Your task to perform on an android device: Open settings on Google Maps Image 0: 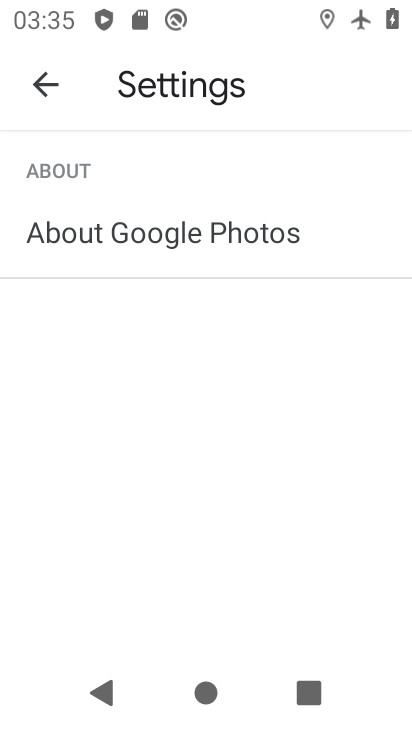
Step 0: press home button
Your task to perform on an android device: Open settings on Google Maps Image 1: 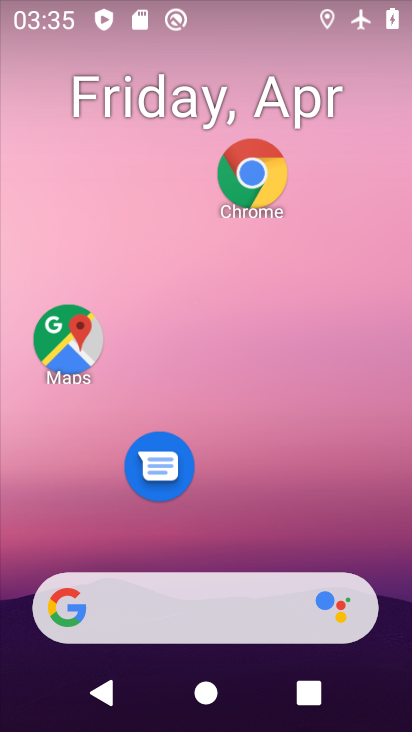
Step 1: click (70, 354)
Your task to perform on an android device: Open settings on Google Maps Image 2: 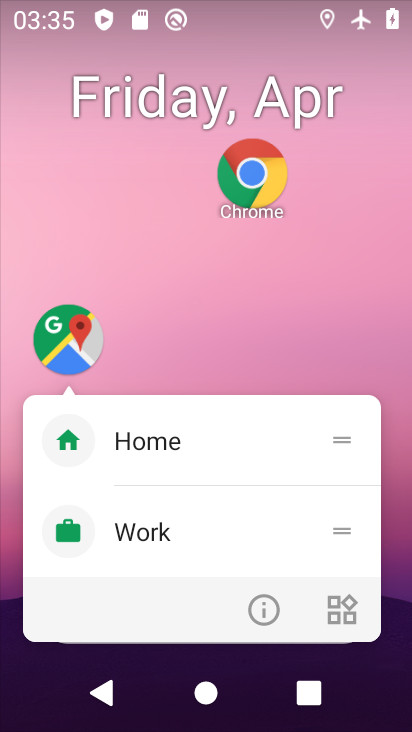
Step 2: click (254, 613)
Your task to perform on an android device: Open settings on Google Maps Image 3: 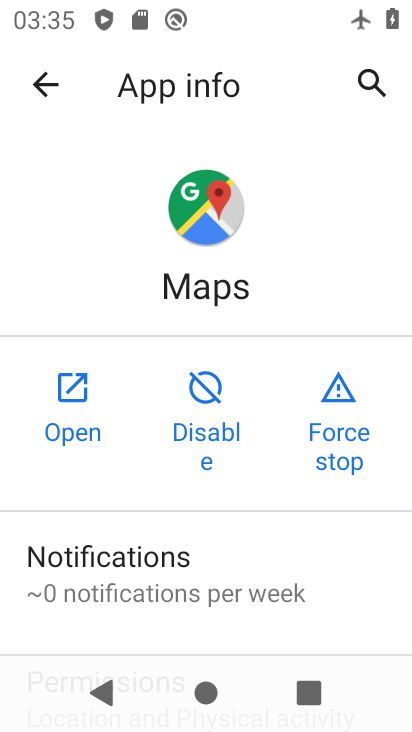
Step 3: click (84, 425)
Your task to perform on an android device: Open settings on Google Maps Image 4: 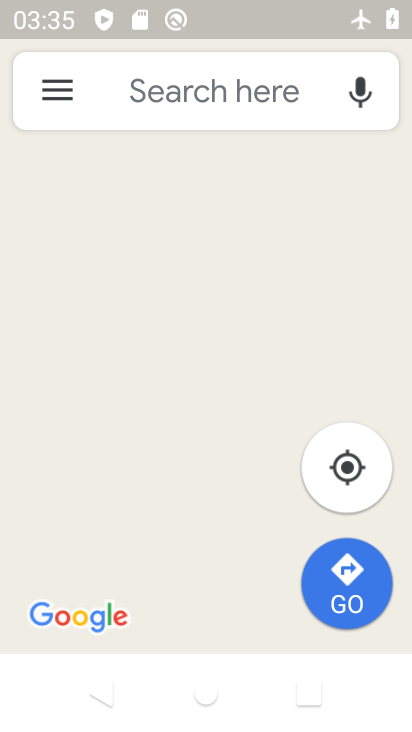
Step 4: click (56, 89)
Your task to perform on an android device: Open settings on Google Maps Image 5: 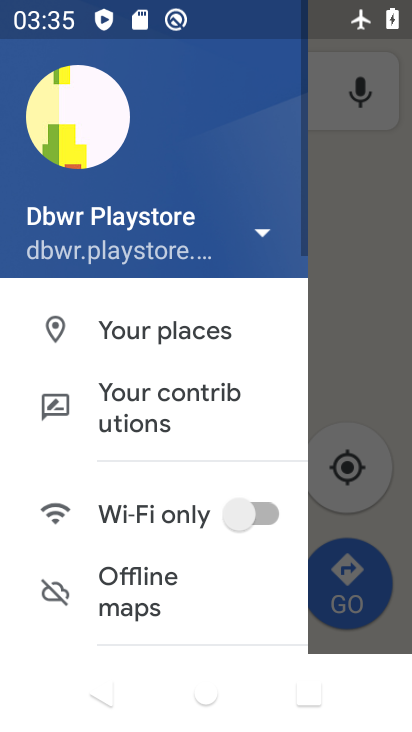
Step 5: drag from (150, 588) to (139, 141)
Your task to perform on an android device: Open settings on Google Maps Image 6: 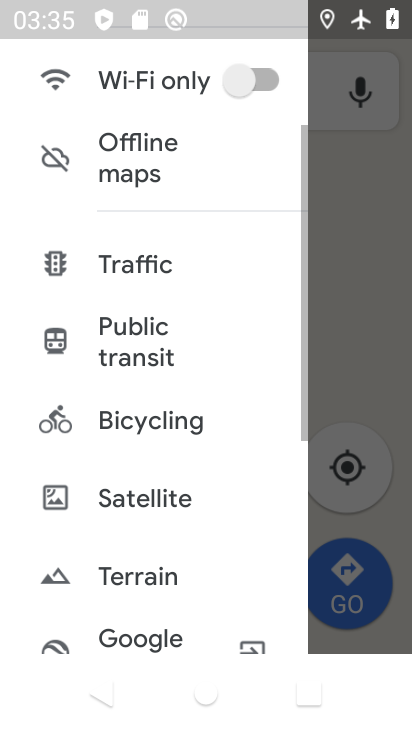
Step 6: drag from (118, 547) to (166, 211)
Your task to perform on an android device: Open settings on Google Maps Image 7: 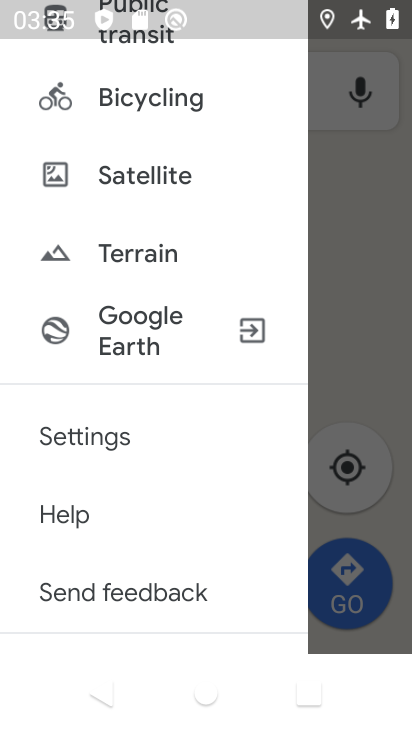
Step 7: click (116, 445)
Your task to perform on an android device: Open settings on Google Maps Image 8: 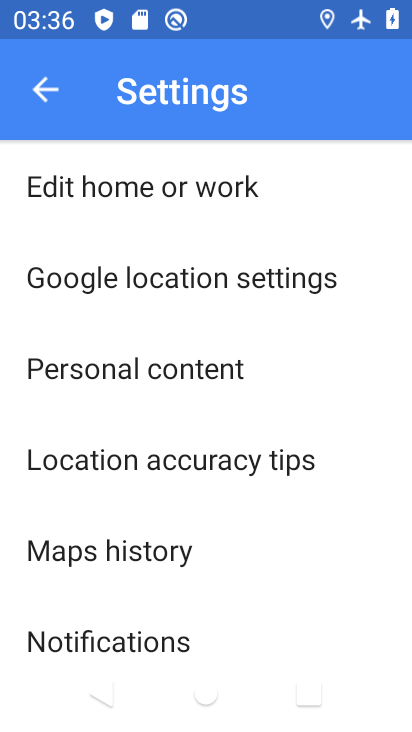
Step 8: task complete